Your task to perform on an android device: check storage Image 0: 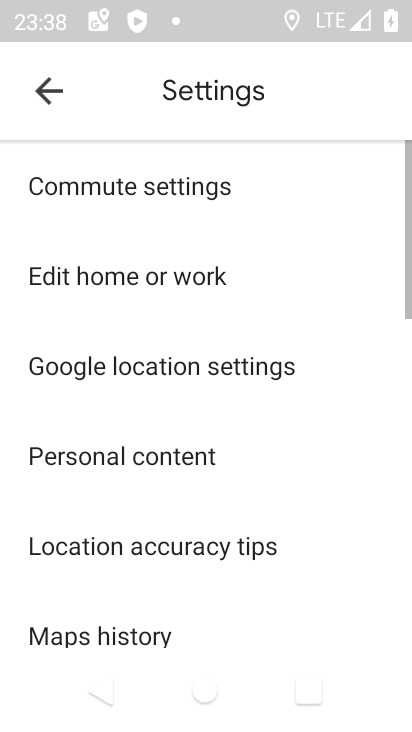
Step 0: press home button
Your task to perform on an android device: check storage Image 1: 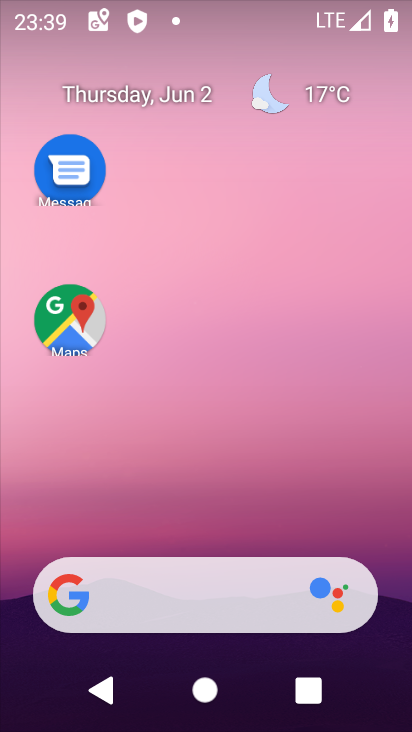
Step 1: drag from (219, 479) to (199, 146)
Your task to perform on an android device: check storage Image 2: 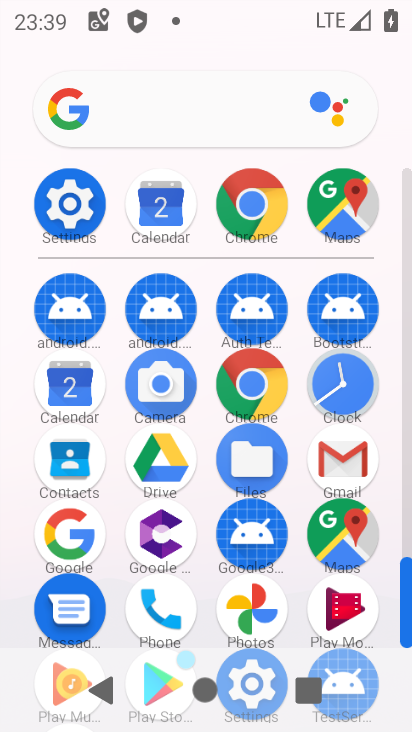
Step 2: click (54, 203)
Your task to perform on an android device: check storage Image 3: 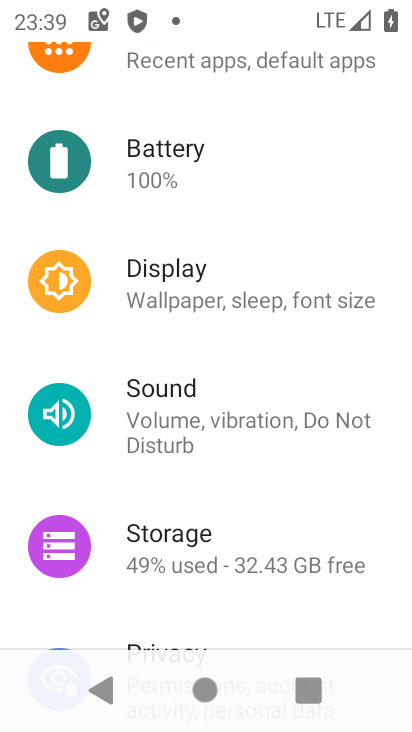
Step 3: click (140, 572)
Your task to perform on an android device: check storage Image 4: 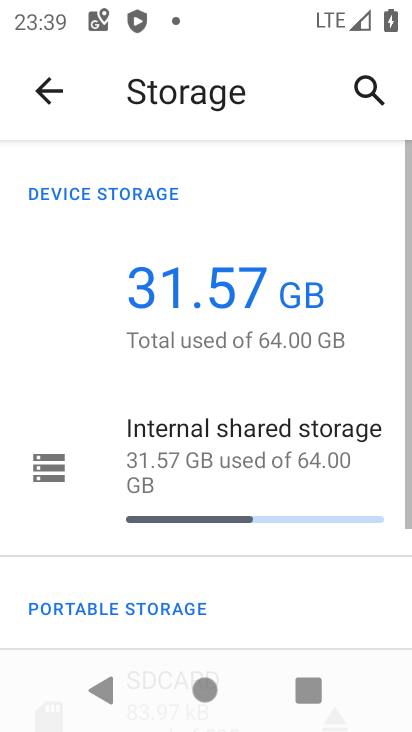
Step 4: task complete